Your task to perform on an android device: Check my gmail Image 0: 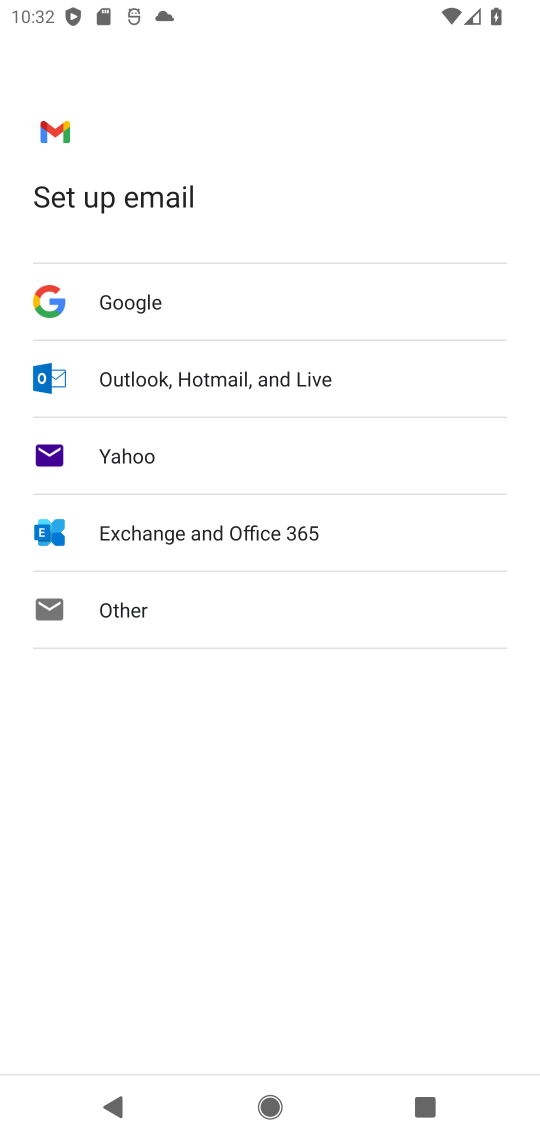
Step 0: press home button
Your task to perform on an android device: Check my gmail Image 1: 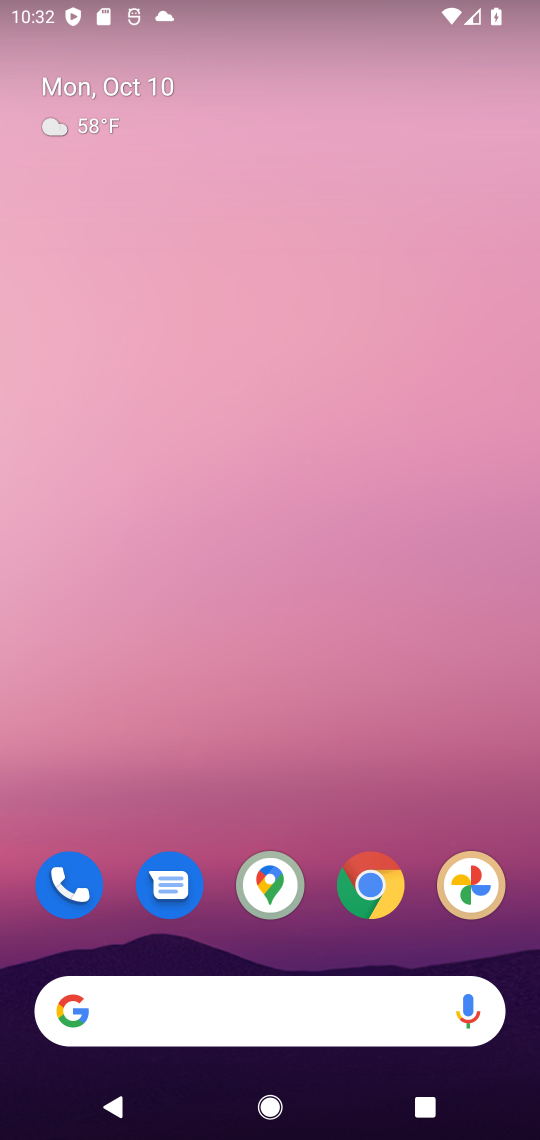
Step 1: drag from (364, 795) to (305, 338)
Your task to perform on an android device: Check my gmail Image 2: 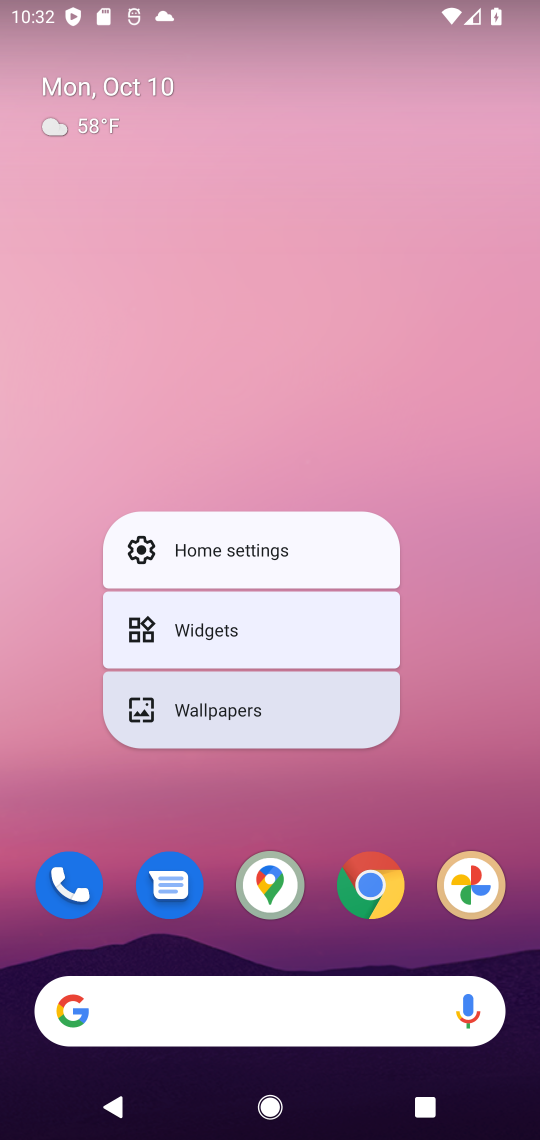
Step 2: click (480, 773)
Your task to perform on an android device: Check my gmail Image 3: 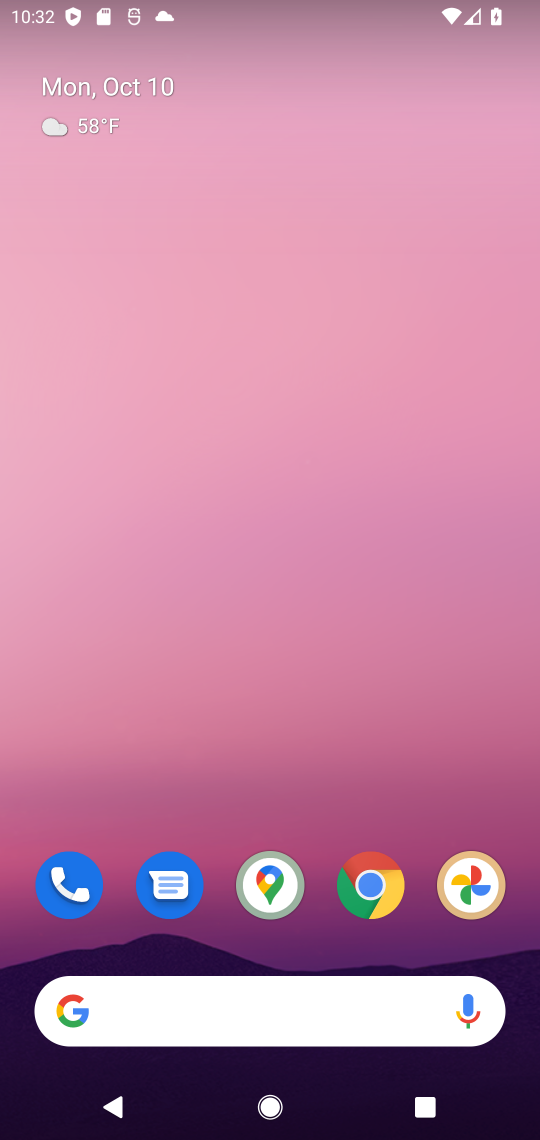
Step 3: drag from (437, 802) to (395, 178)
Your task to perform on an android device: Check my gmail Image 4: 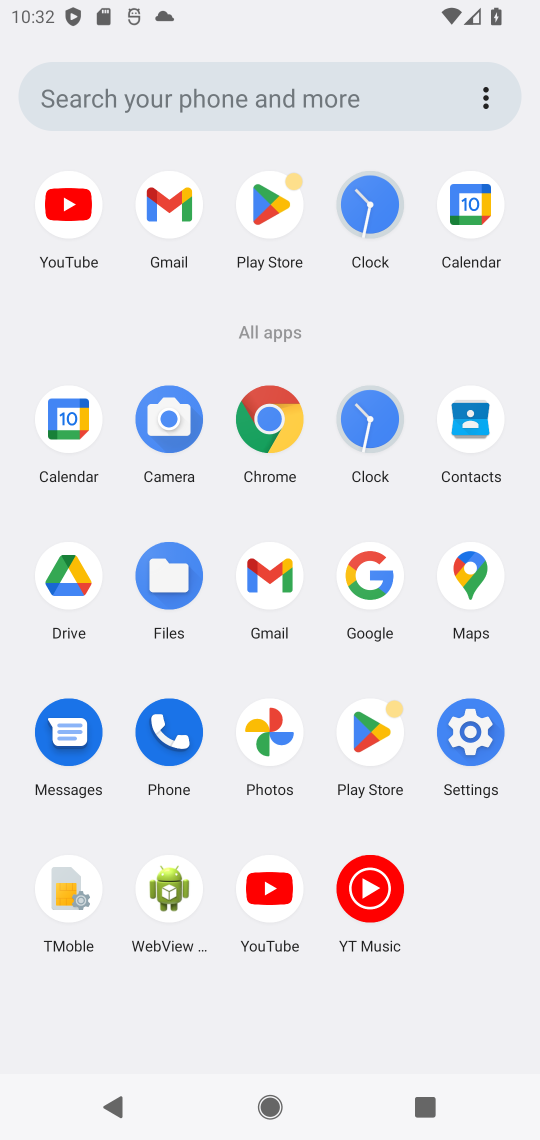
Step 4: click (261, 573)
Your task to perform on an android device: Check my gmail Image 5: 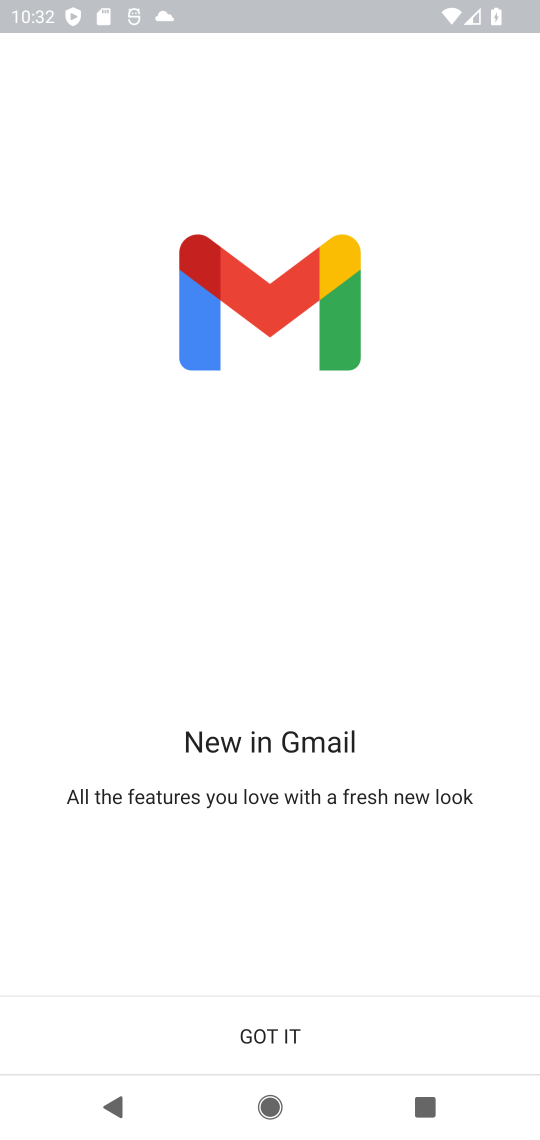
Step 5: click (355, 1041)
Your task to perform on an android device: Check my gmail Image 6: 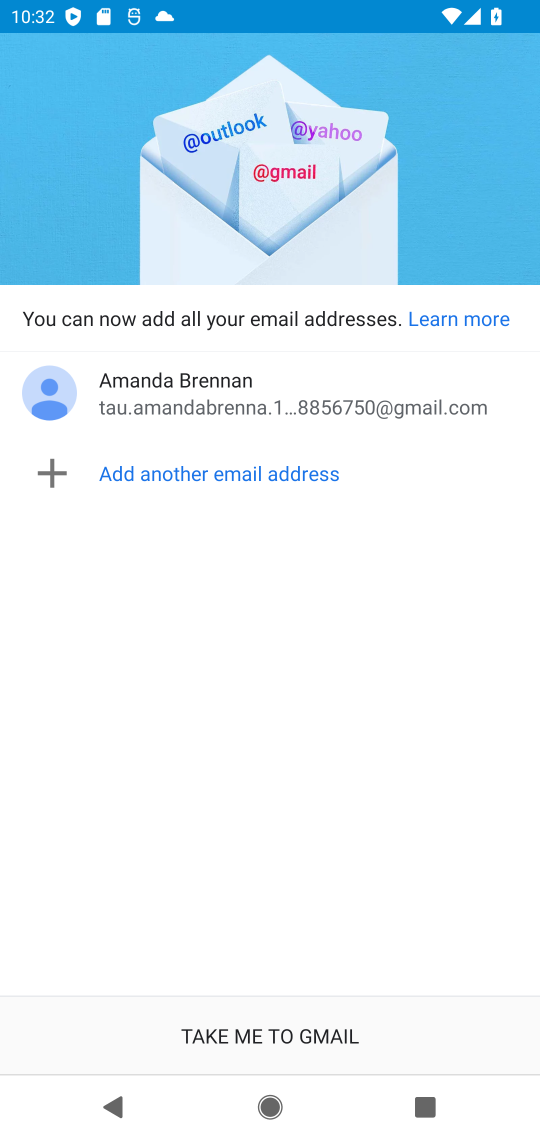
Step 6: click (312, 1028)
Your task to perform on an android device: Check my gmail Image 7: 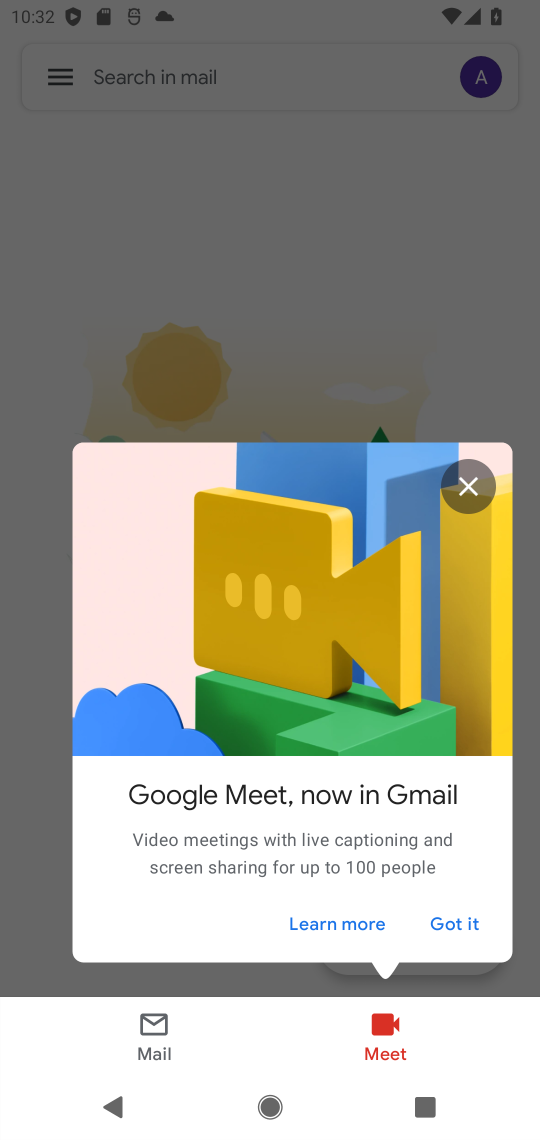
Step 7: click (470, 491)
Your task to perform on an android device: Check my gmail Image 8: 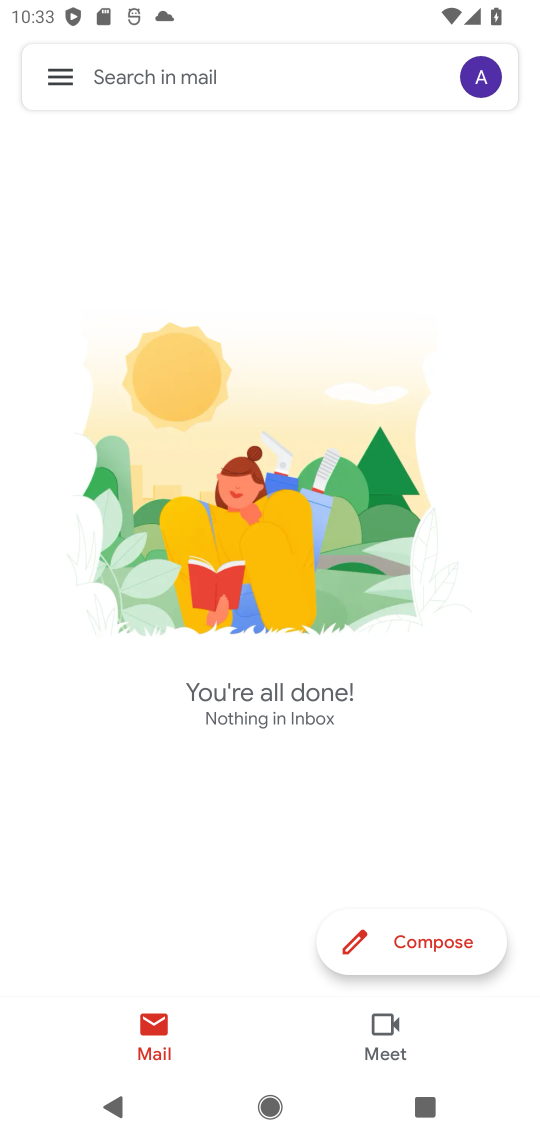
Step 8: task complete